Your task to perform on an android device: create a new album in the google photos Image 0: 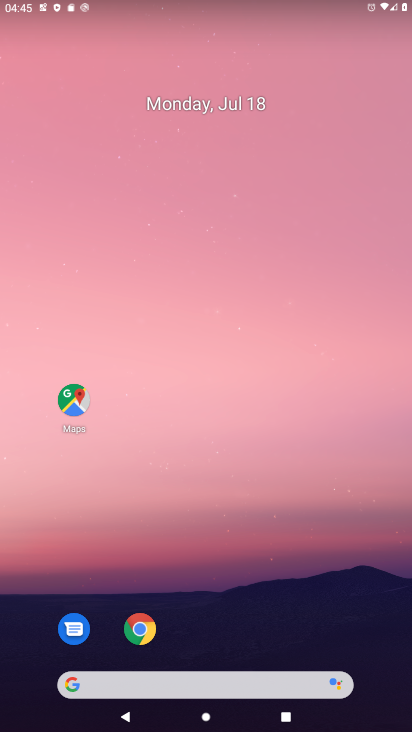
Step 0: drag from (382, 688) to (289, 159)
Your task to perform on an android device: create a new album in the google photos Image 1: 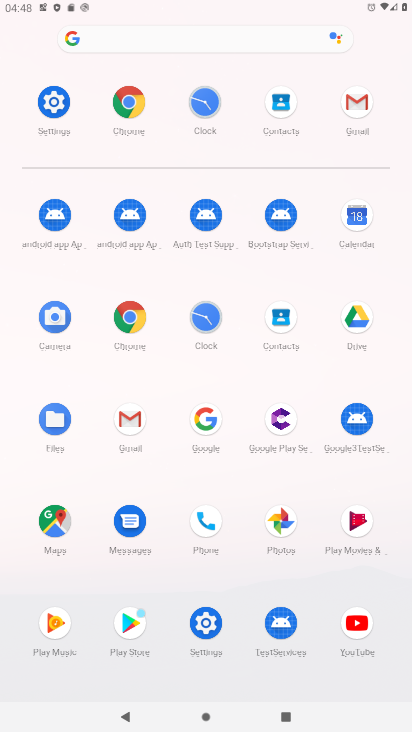
Step 1: click (287, 524)
Your task to perform on an android device: create a new album in the google photos Image 2: 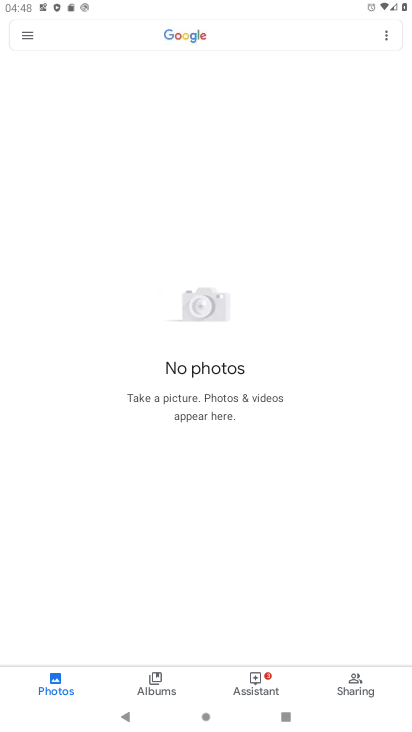
Step 2: click (143, 686)
Your task to perform on an android device: create a new album in the google photos Image 3: 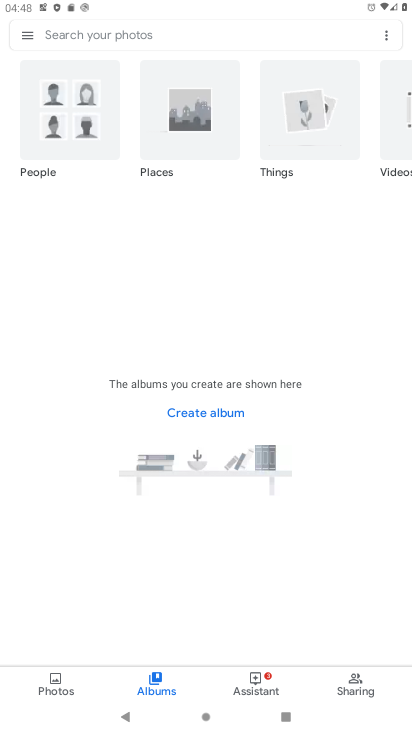
Step 3: task complete